Your task to perform on an android device: turn off picture-in-picture Image 0: 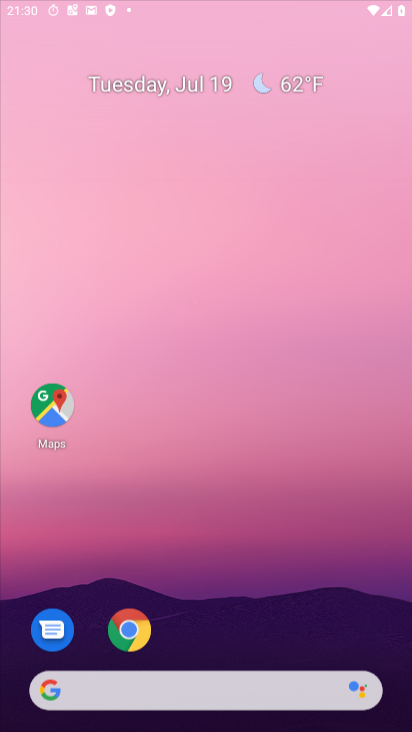
Step 0: click (146, 689)
Your task to perform on an android device: turn off picture-in-picture Image 1: 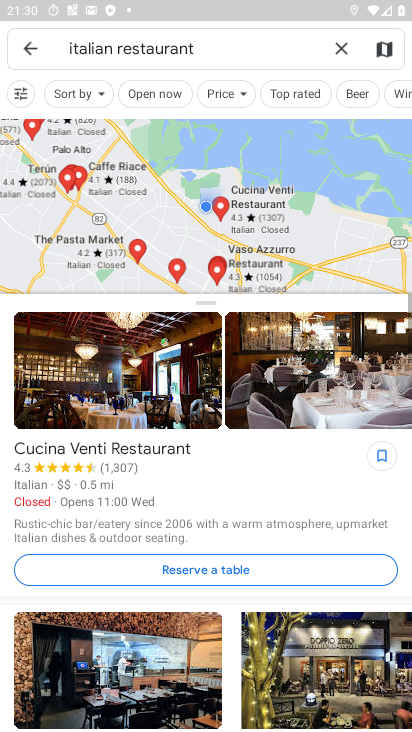
Step 1: click (343, 45)
Your task to perform on an android device: turn off picture-in-picture Image 2: 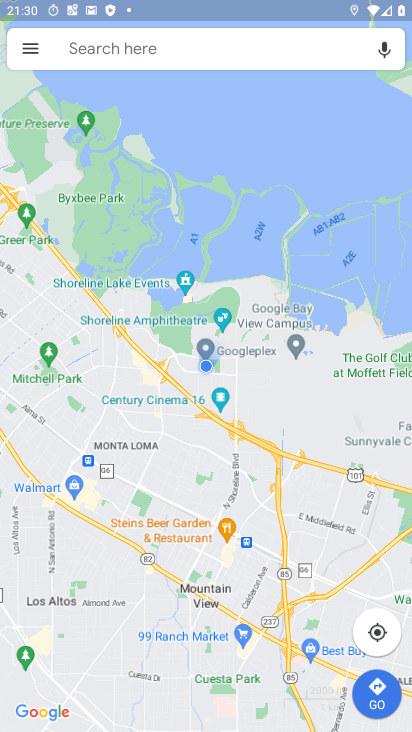
Step 2: press home button
Your task to perform on an android device: turn off picture-in-picture Image 3: 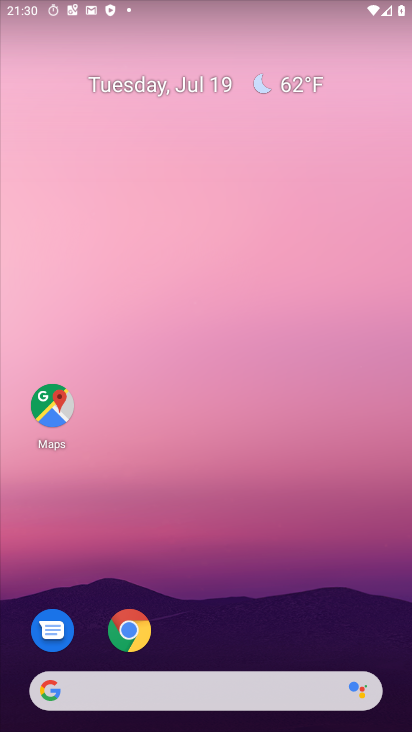
Step 3: drag from (25, 692) to (211, 199)
Your task to perform on an android device: turn off picture-in-picture Image 4: 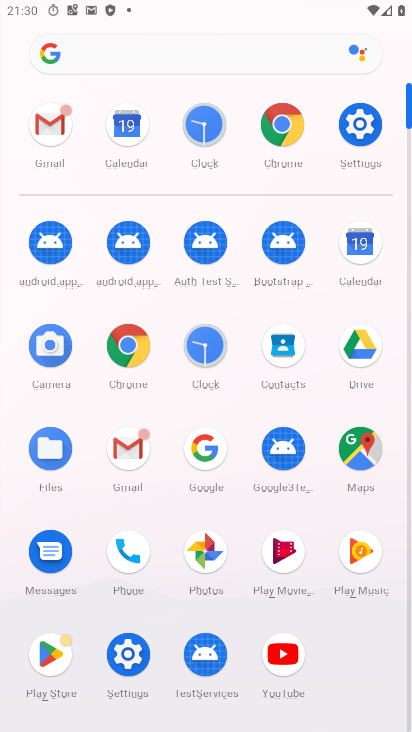
Step 4: click (120, 655)
Your task to perform on an android device: turn off picture-in-picture Image 5: 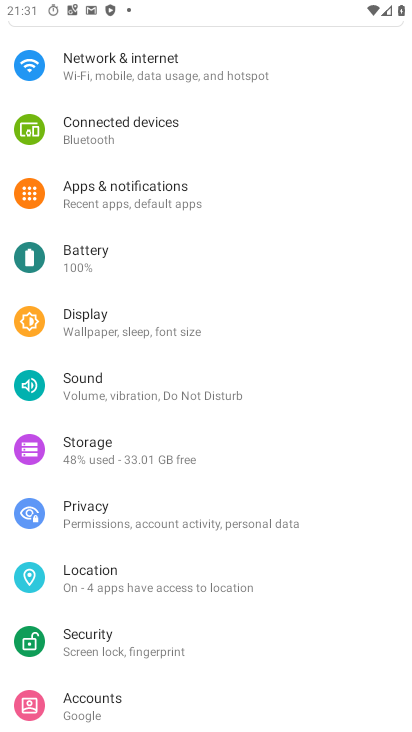
Step 5: click (125, 200)
Your task to perform on an android device: turn off picture-in-picture Image 6: 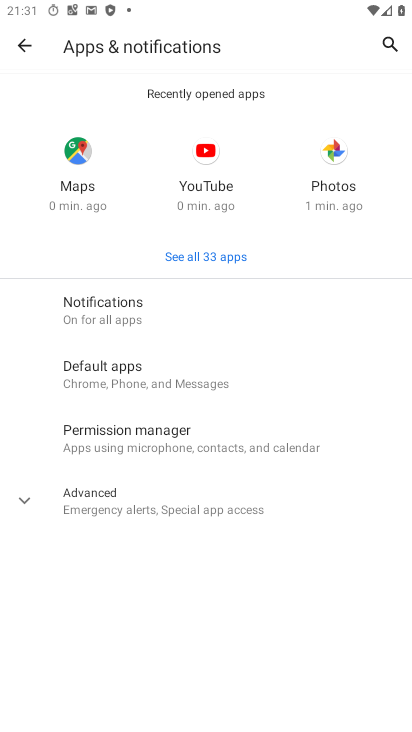
Step 6: click (86, 491)
Your task to perform on an android device: turn off picture-in-picture Image 7: 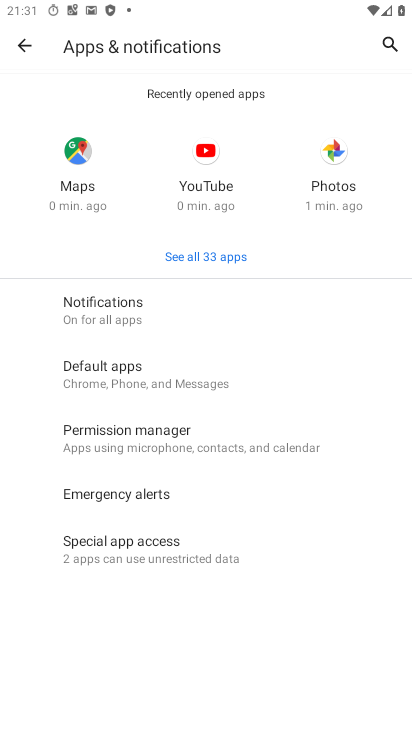
Step 7: click (111, 309)
Your task to perform on an android device: turn off picture-in-picture Image 8: 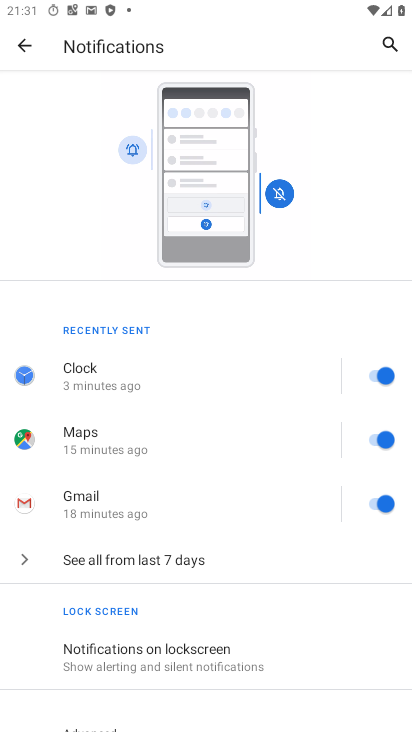
Step 8: click (18, 38)
Your task to perform on an android device: turn off picture-in-picture Image 9: 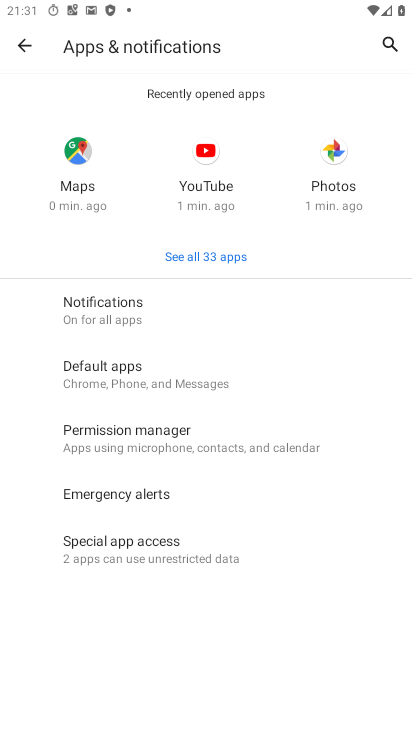
Step 9: click (118, 389)
Your task to perform on an android device: turn off picture-in-picture Image 10: 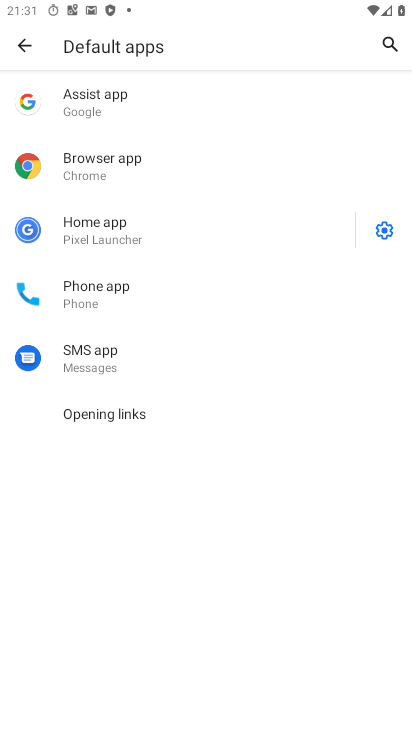
Step 10: click (22, 41)
Your task to perform on an android device: turn off picture-in-picture Image 11: 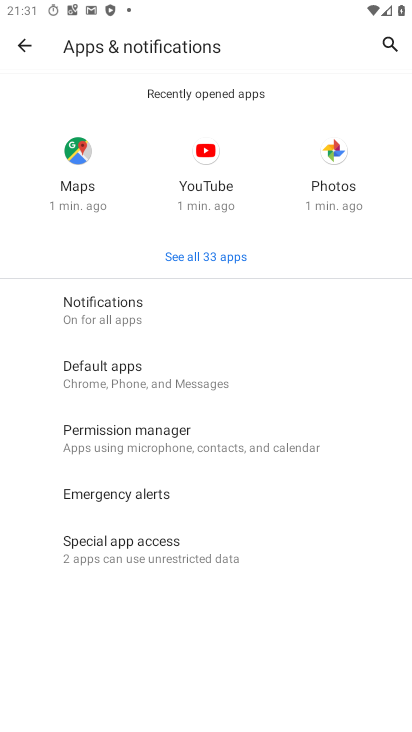
Step 11: click (139, 441)
Your task to perform on an android device: turn off picture-in-picture Image 12: 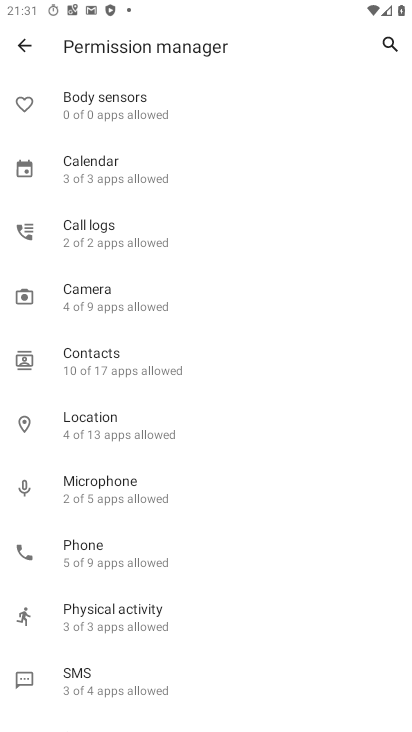
Step 12: task complete